Your task to perform on an android device: manage bookmarks in the chrome app Image 0: 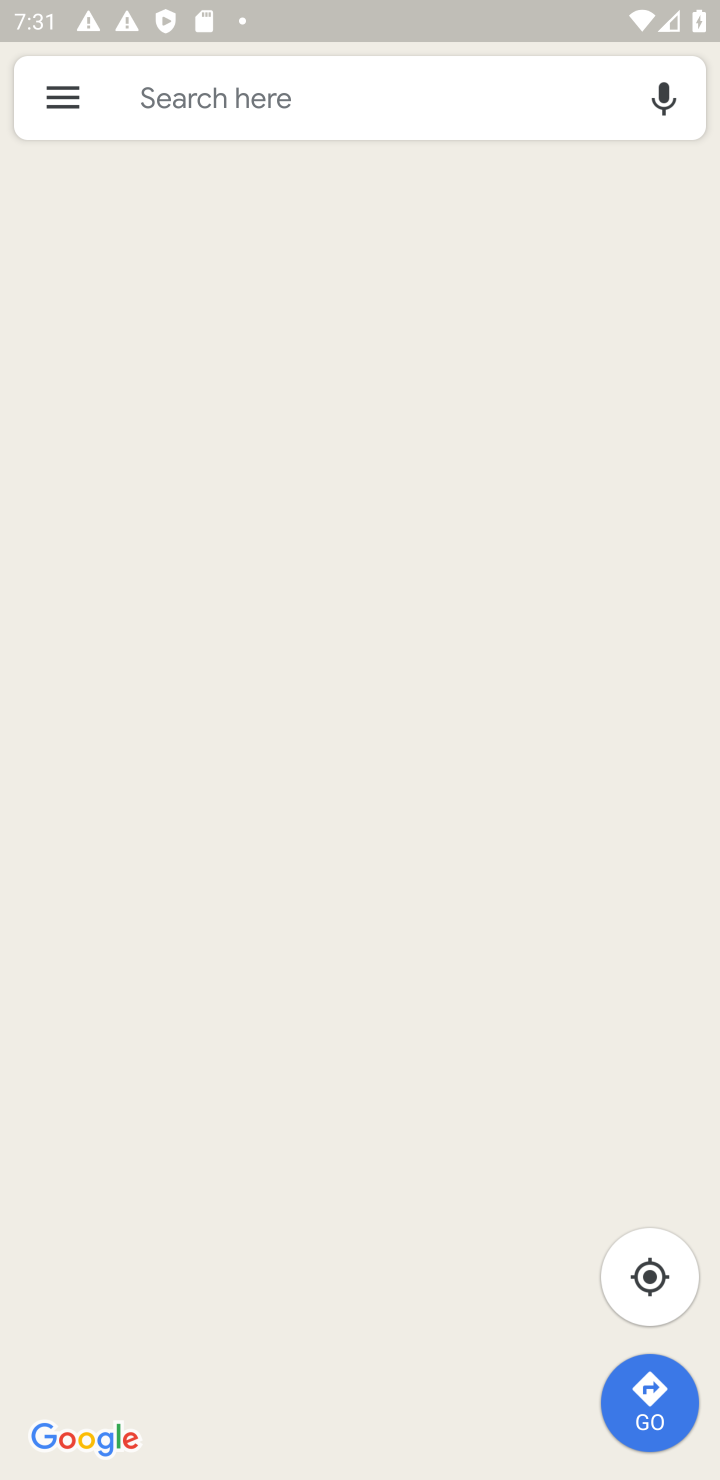
Step 0: press home button
Your task to perform on an android device: manage bookmarks in the chrome app Image 1: 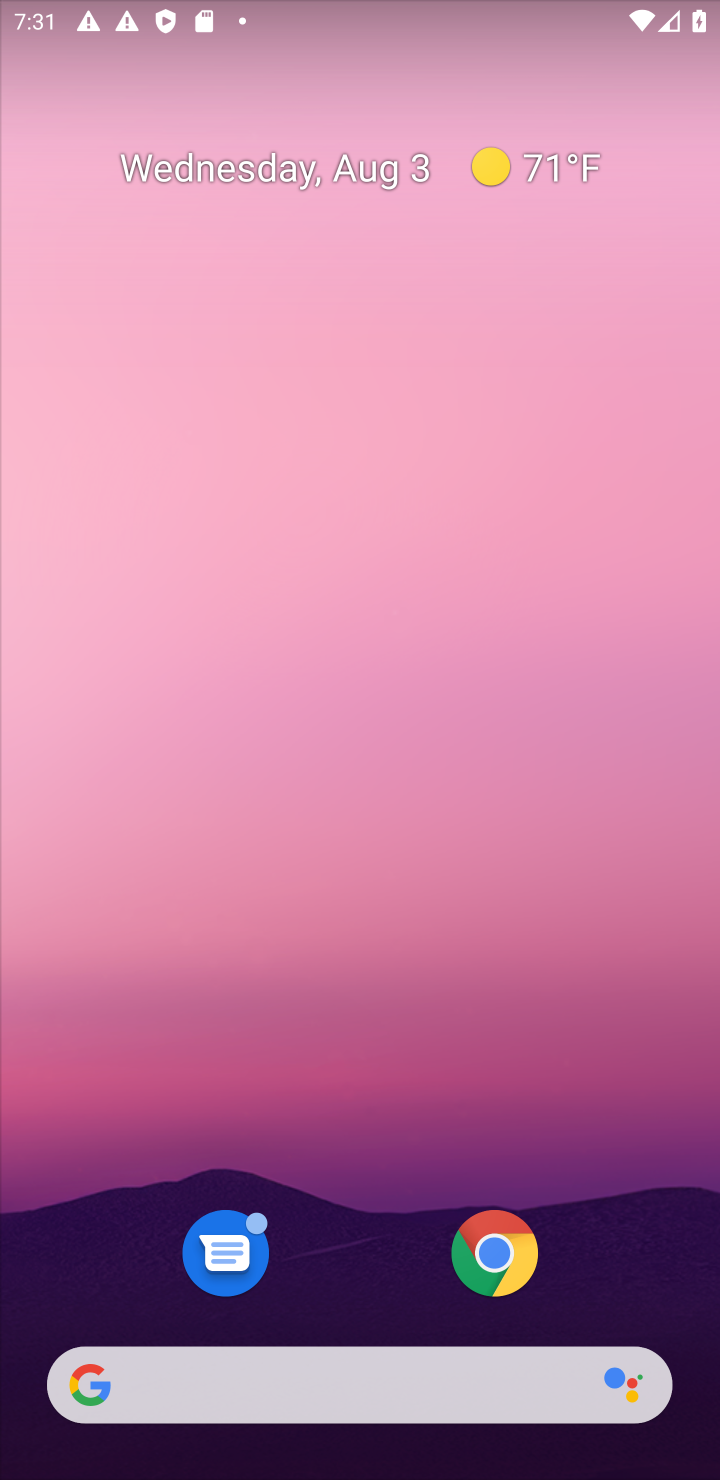
Step 1: click (488, 1256)
Your task to perform on an android device: manage bookmarks in the chrome app Image 2: 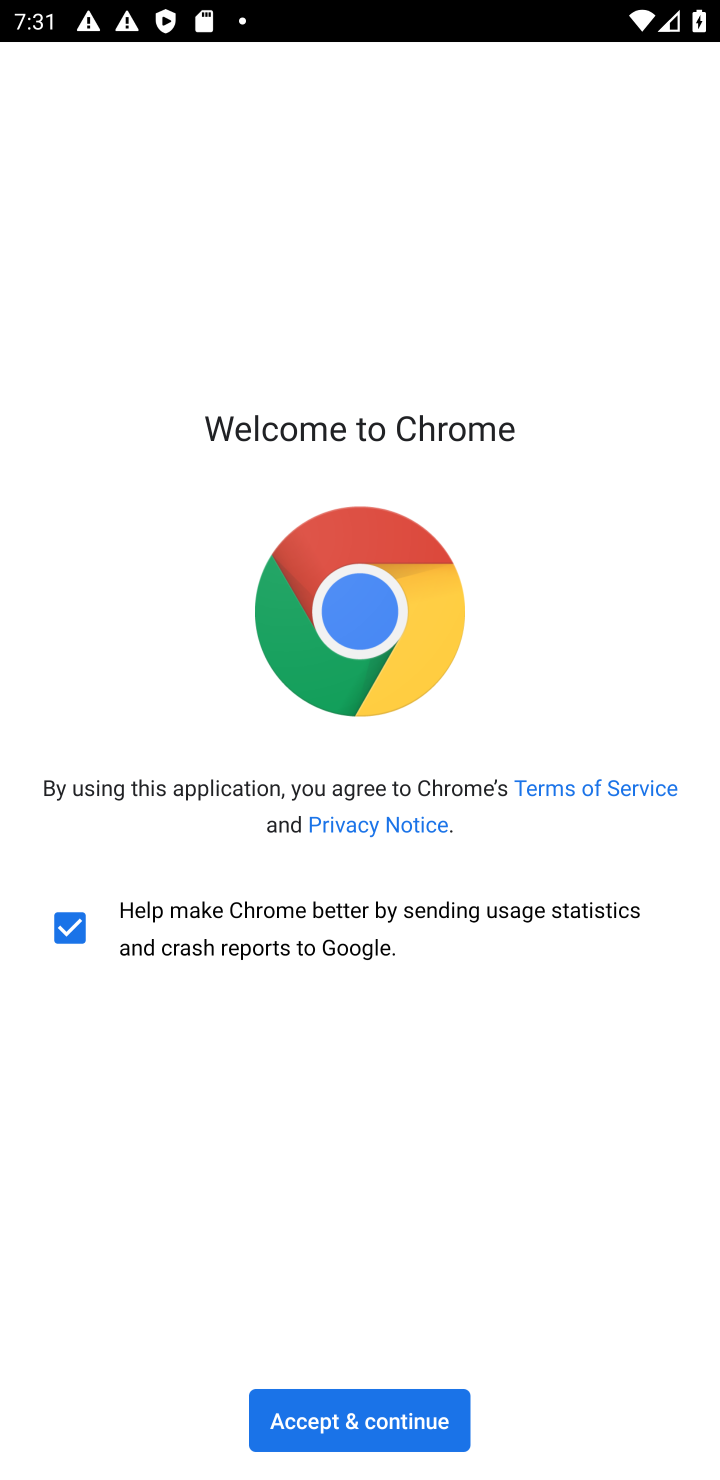
Step 2: click (378, 1426)
Your task to perform on an android device: manage bookmarks in the chrome app Image 3: 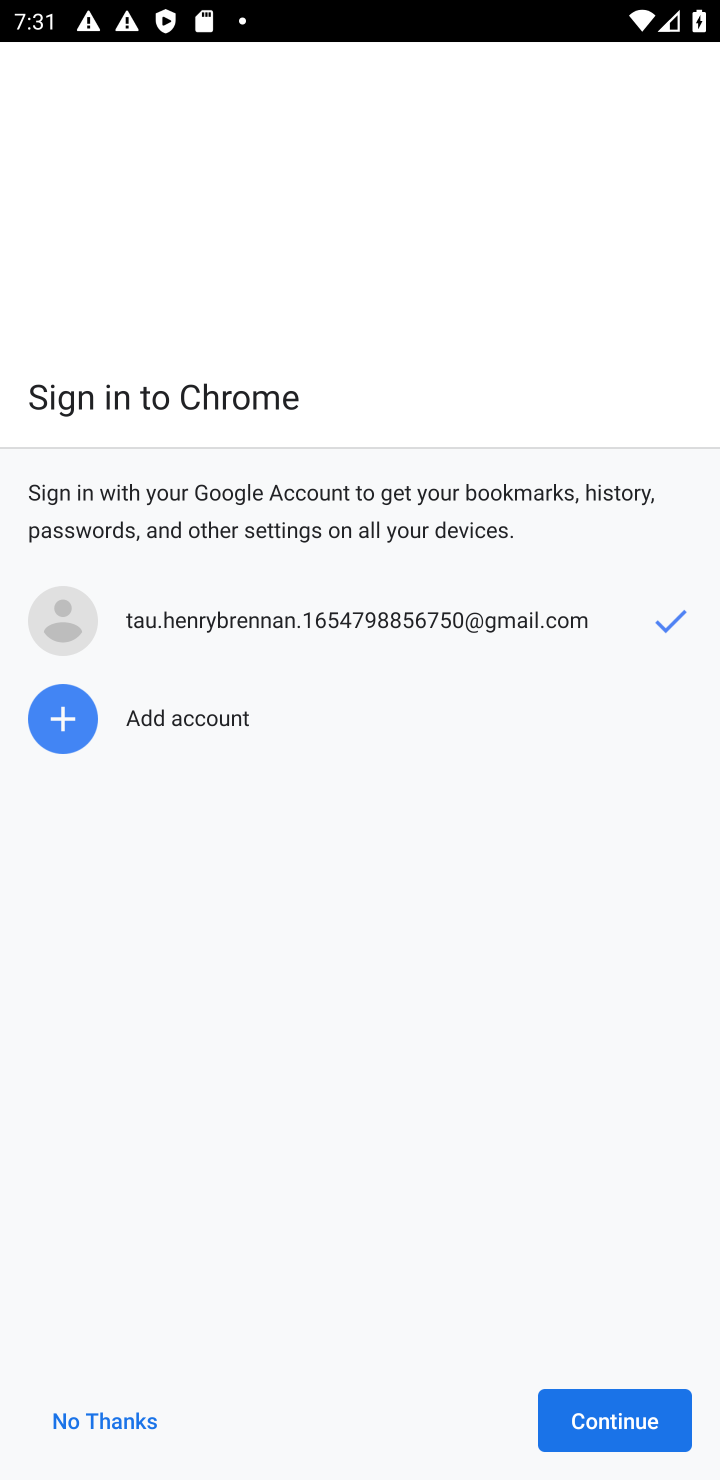
Step 3: click (633, 1436)
Your task to perform on an android device: manage bookmarks in the chrome app Image 4: 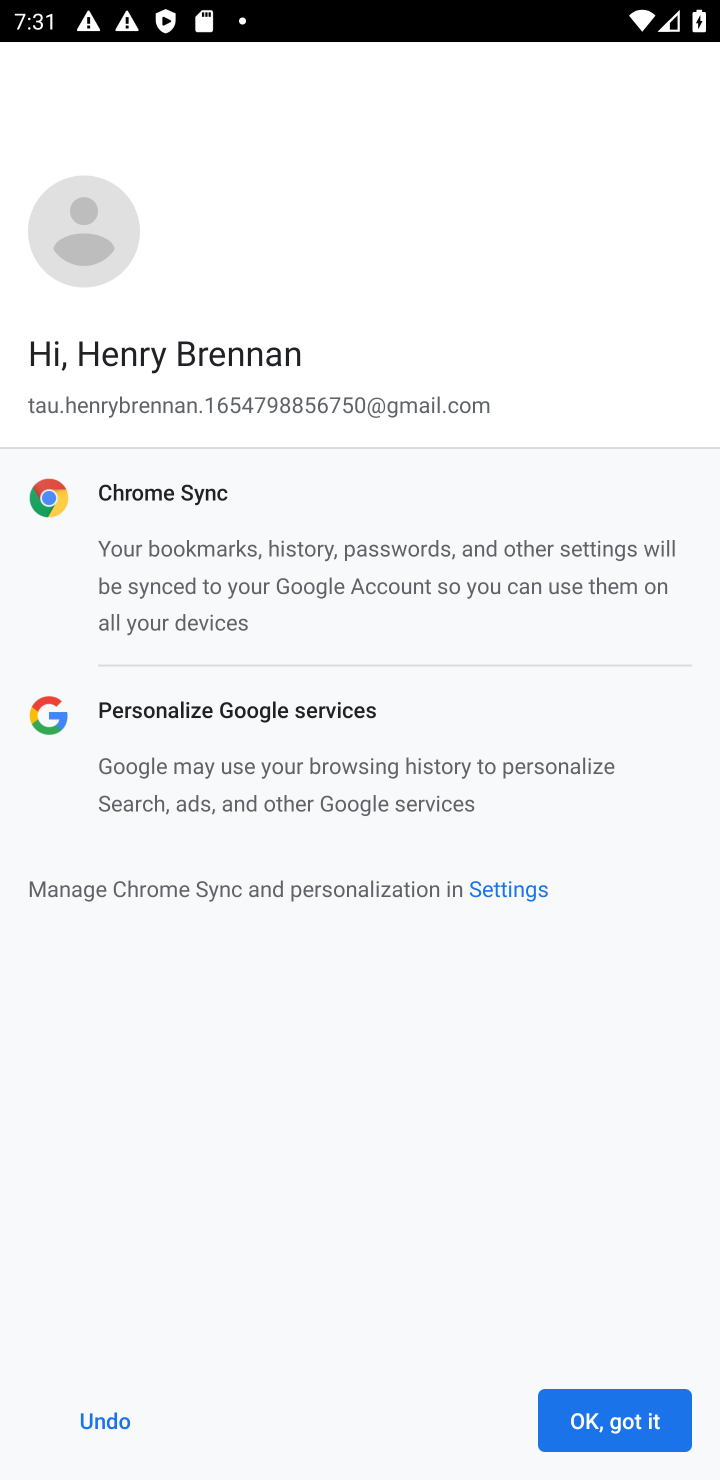
Step 4: click (633, 1436)
Your task to perform on an android device: manage bookmarks in the chrome app Image 5: 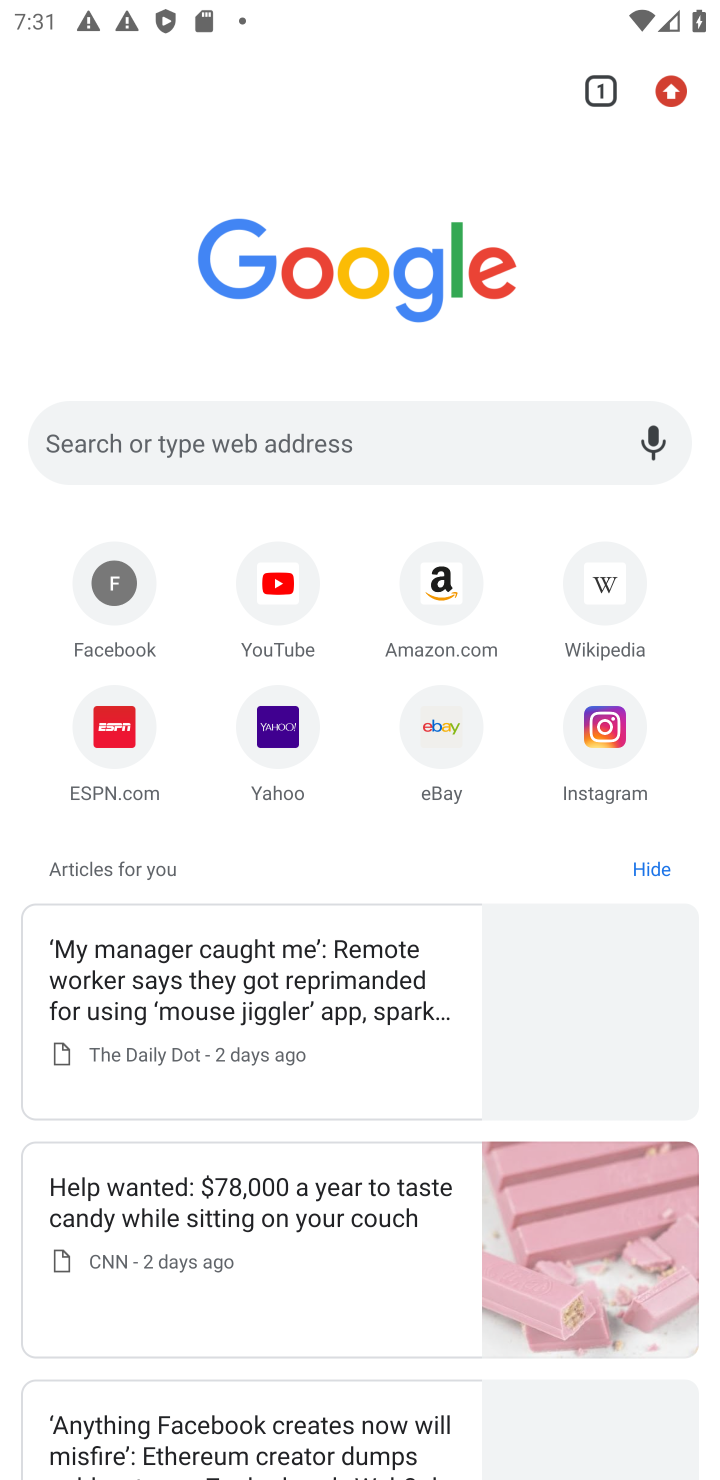
Step 5: click (664, 75)
Your task to perform on an android device: manage bookmarks in the chrome app Image 6: 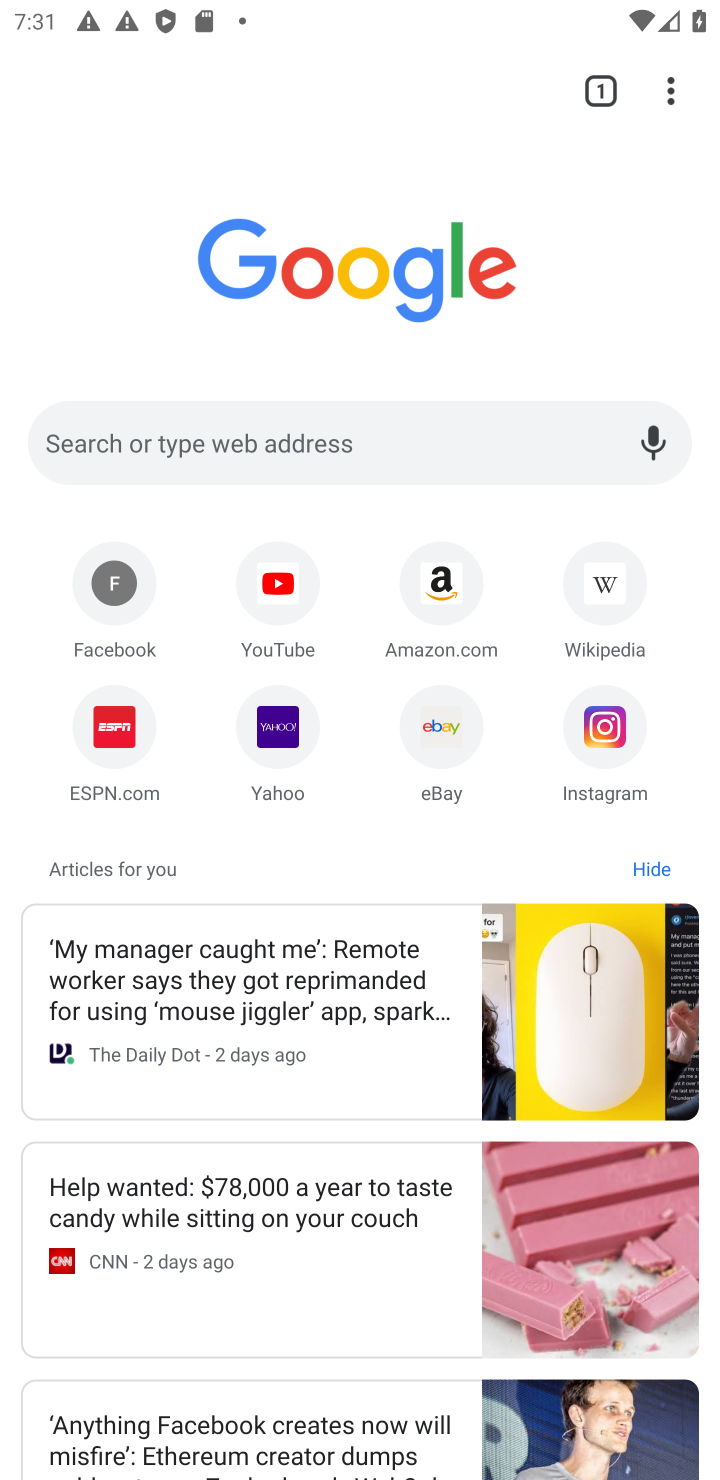
Step 6: click (668, 94)
Your task to perform on an android device: manage bookmarks in the chrome app Image 7: 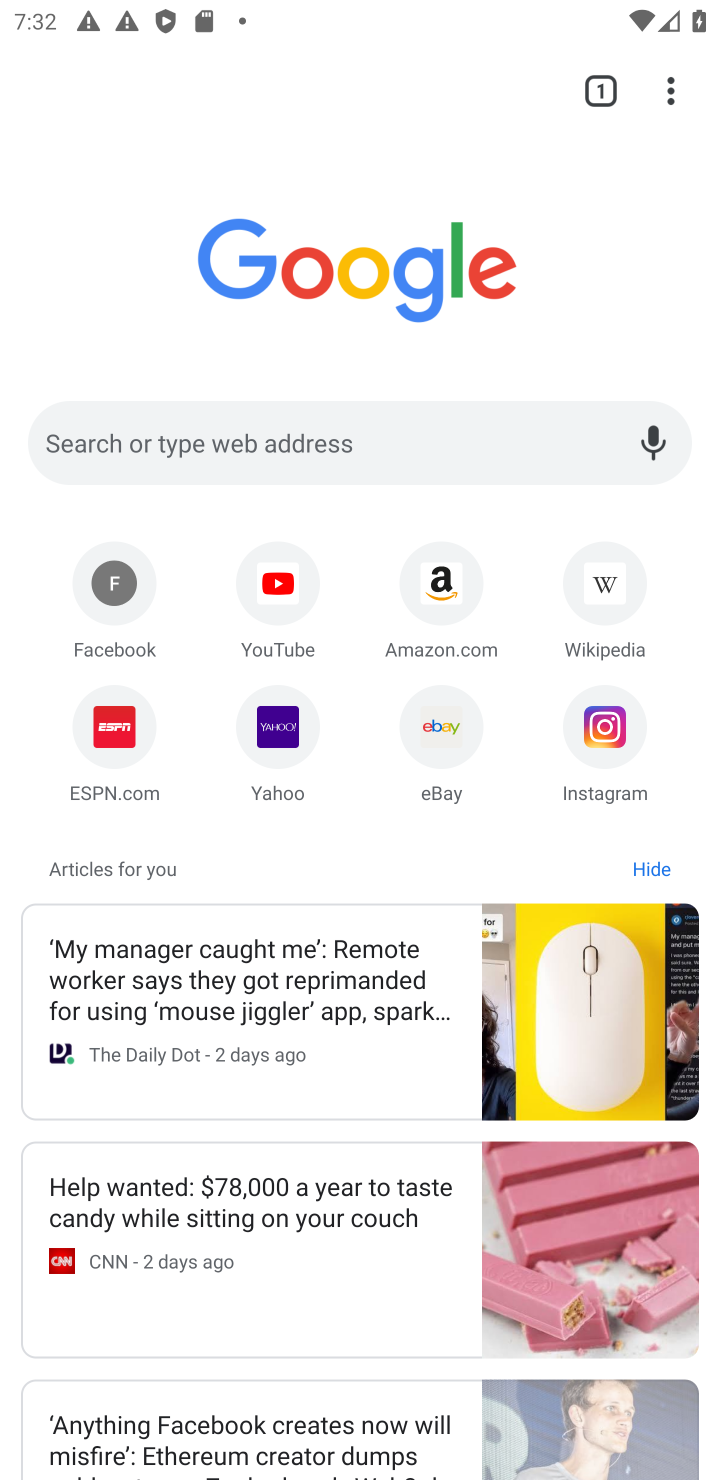
Step 7: click (673, 96)
Your task to perform on an android device: manage bookmarks in the chrome app Image 8: 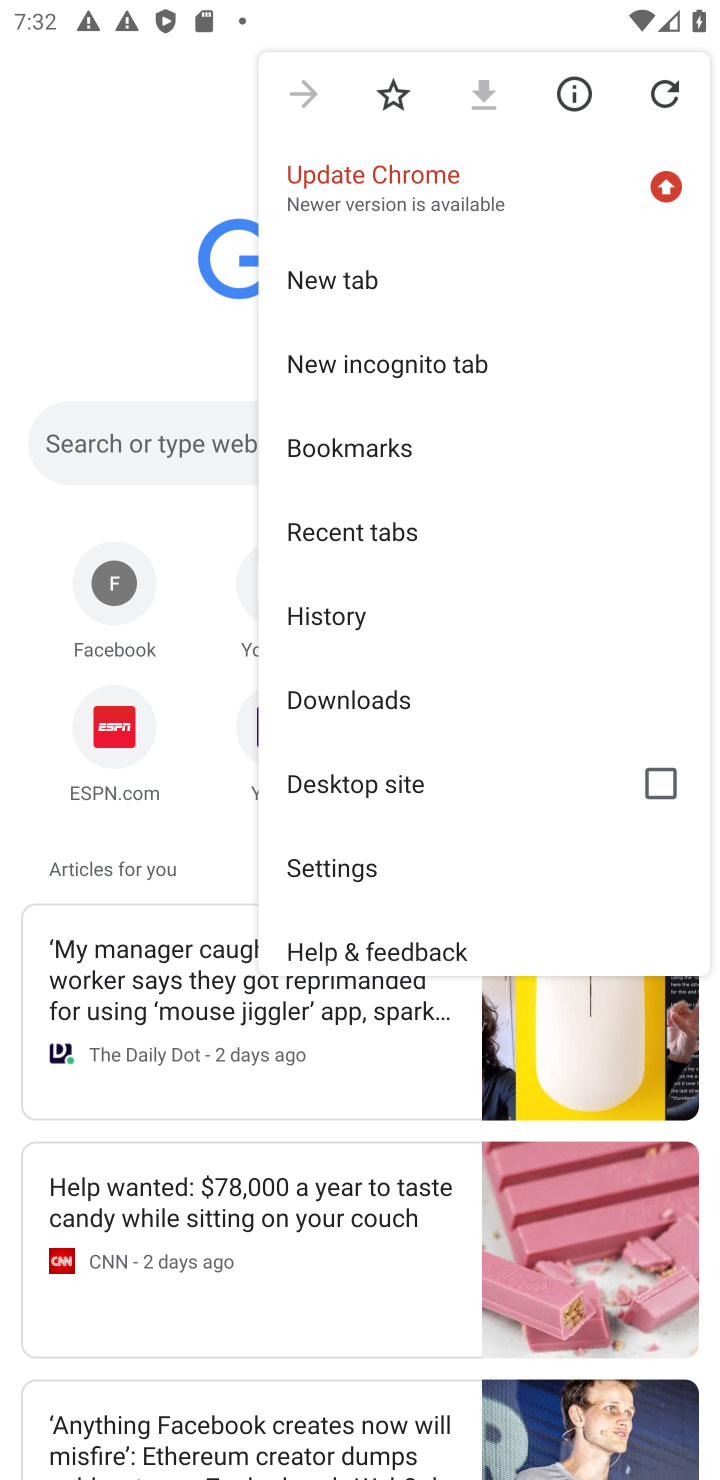
Step 8: click (421, 450)
Your task to perform on an android device: manage bookmarks in the chrome app Image 9: 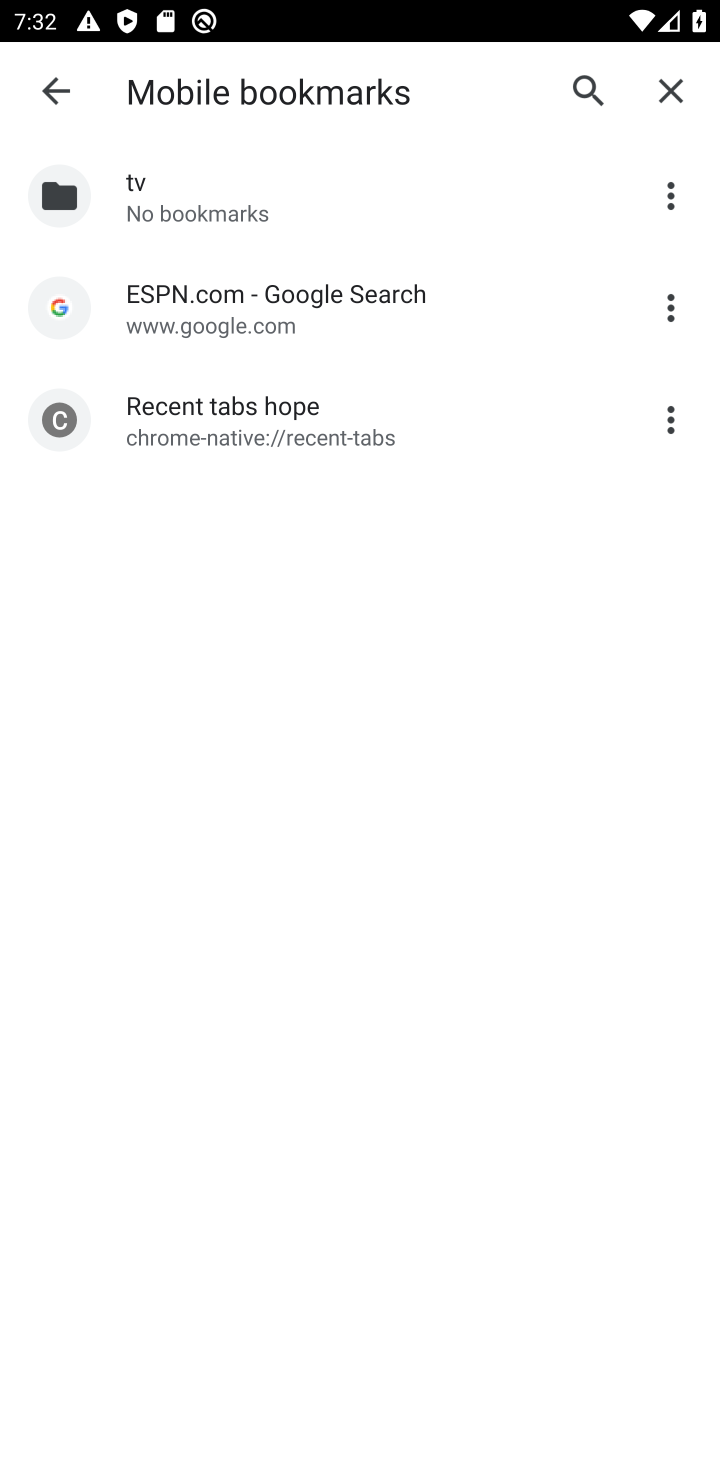
Step 9: click (256, 207)
Your task to perform on an android device: manage bookmarks in the chrome app Image 10: 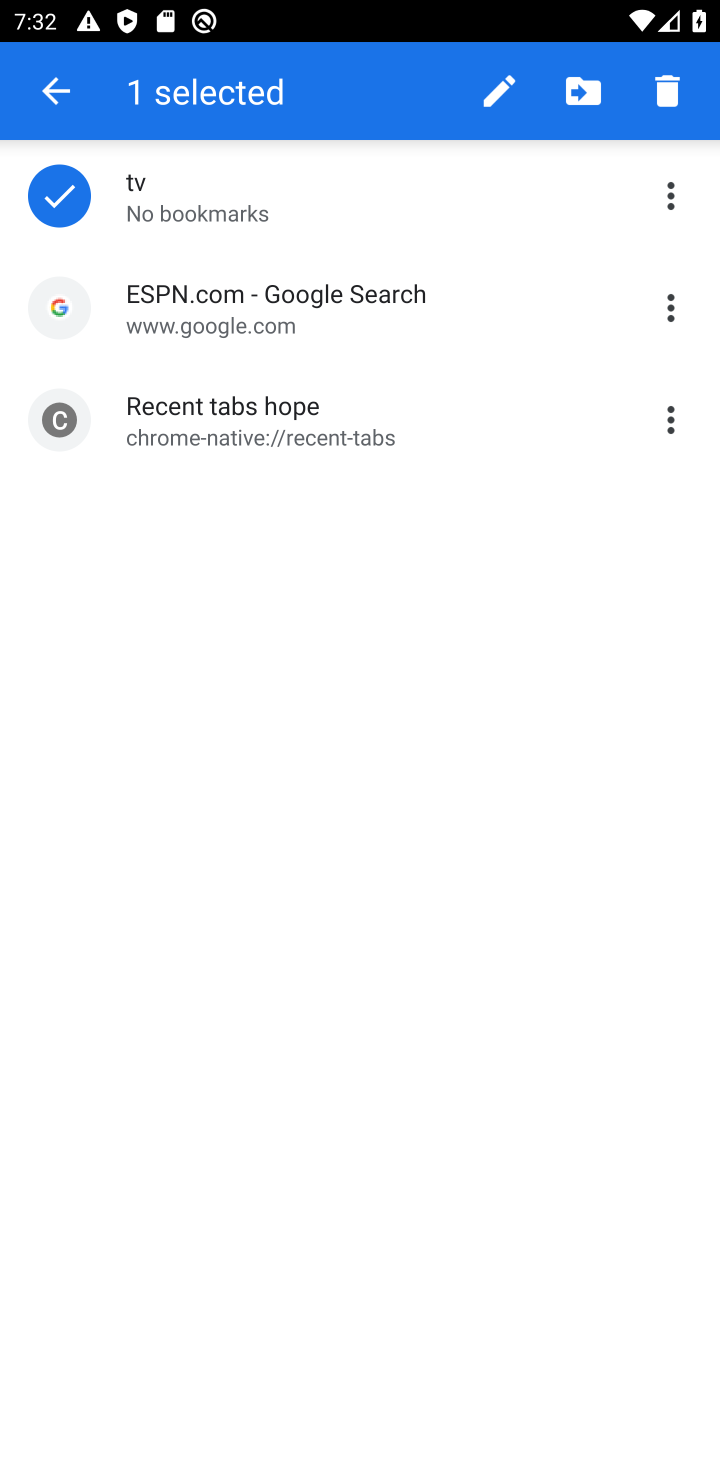
Step 10: click (256, 207)
Your task to perform on an android device: manage bookmarks in the chrome app Image 11: 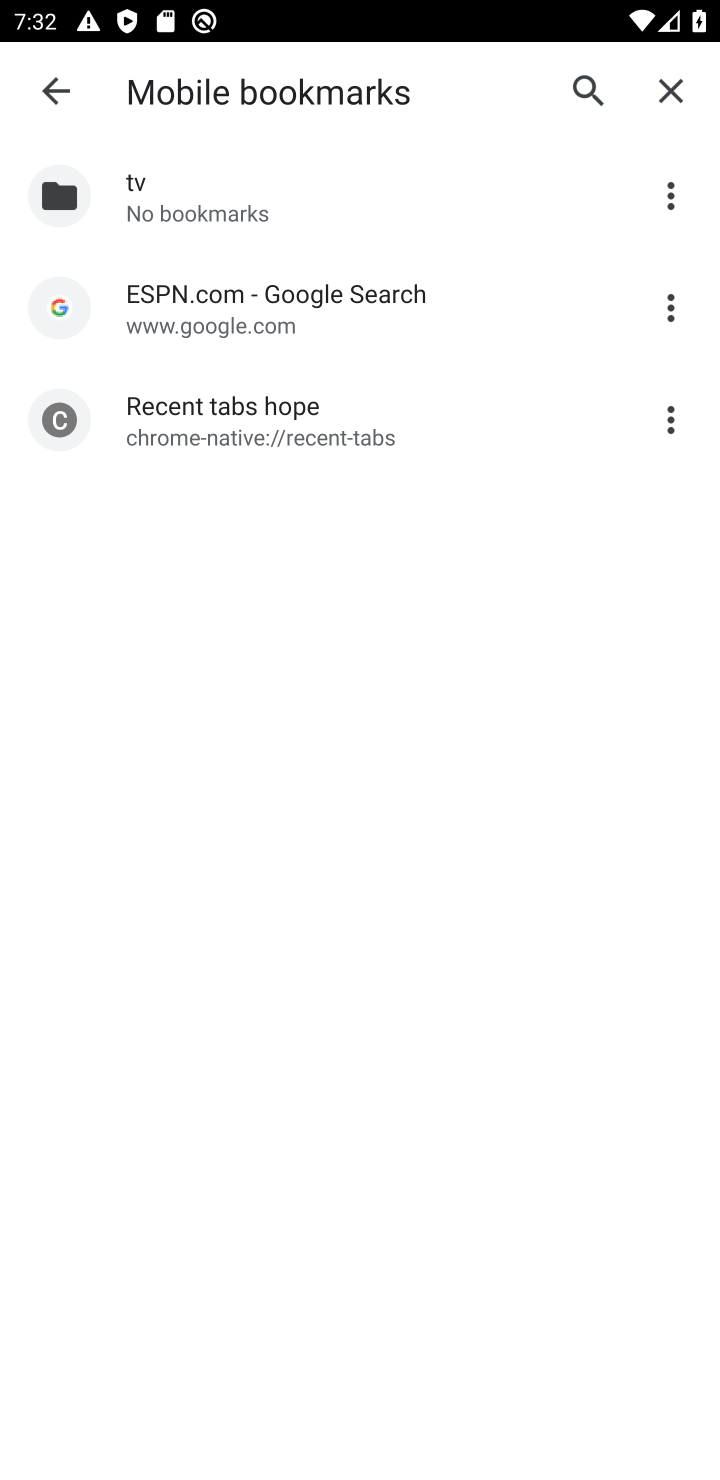
Step 11: click (396, 217)
Your task to perform on an android device: manage bookmarks in the chrome app Image 12: 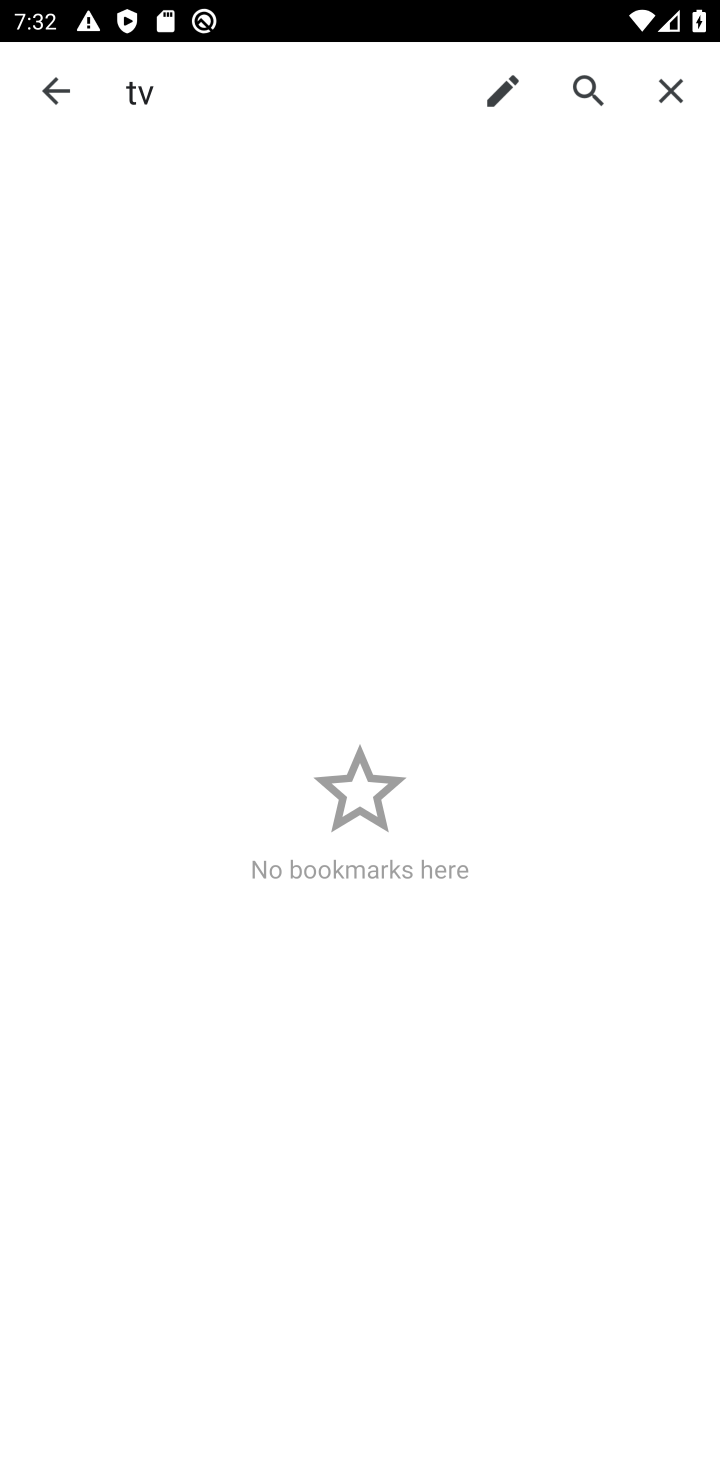
Step 12: click (62, 97)
Your task to perform on an android device: manage bookmarks in the chrome app Image 13: 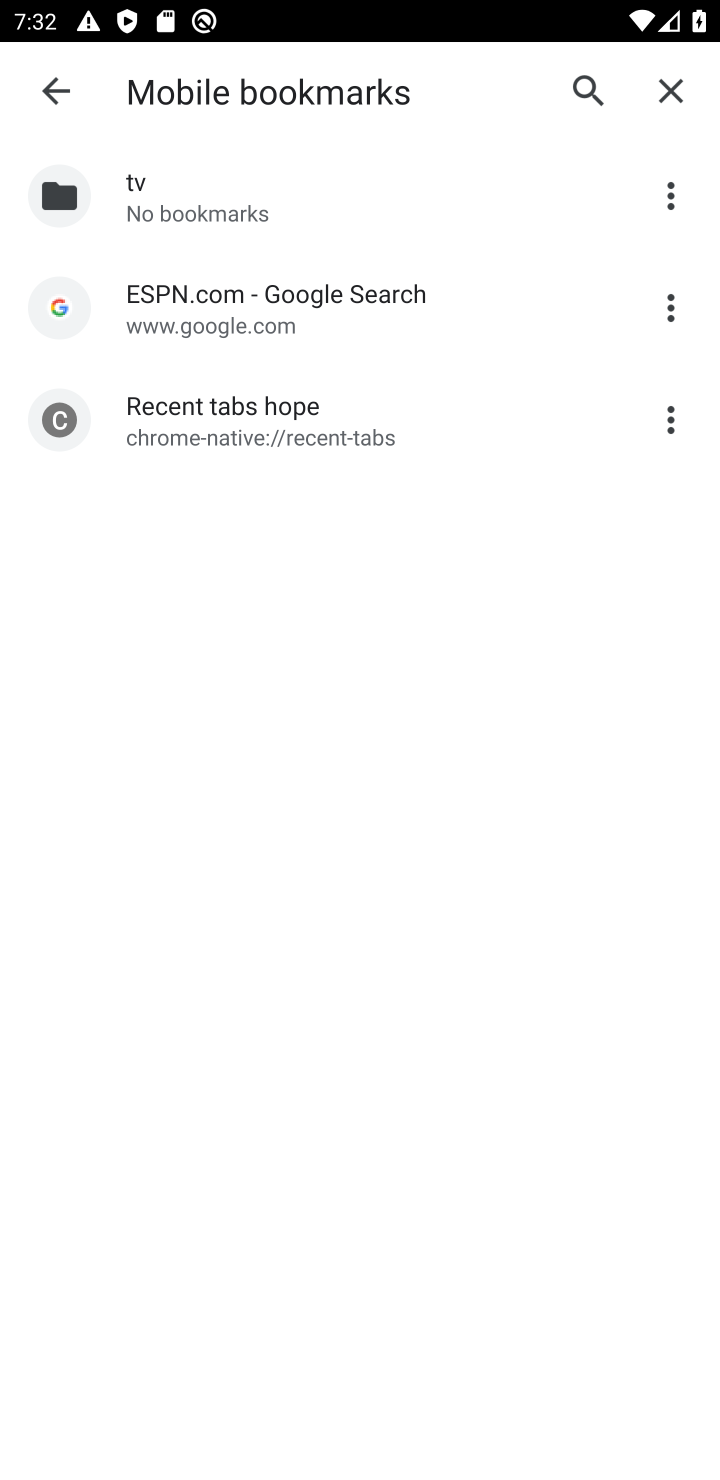
Step 13: task complete